Your task to perform on an android device: Open Yahoo.com Image 0: 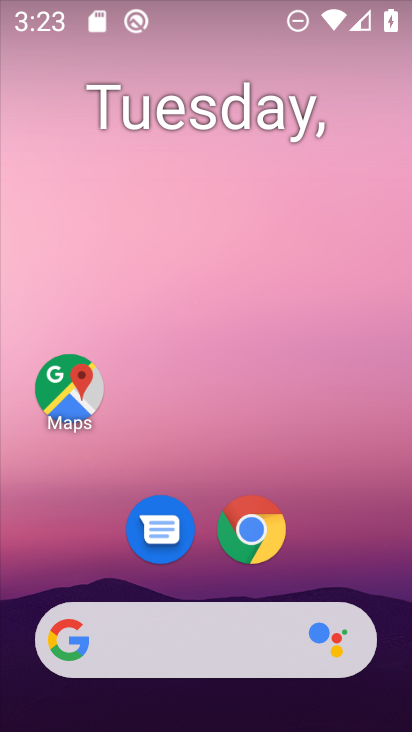
Step 0: click (256, 524)
Your task to perform on an android device: Open Yahoo.com Image 1: 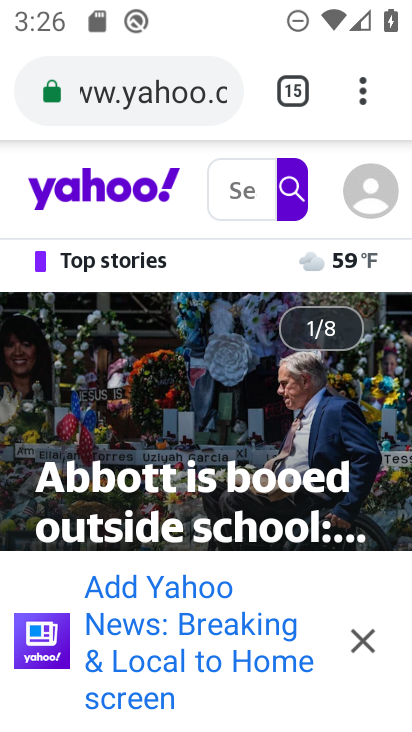
Step 1: task complete